Your task to perform on an android device: Open settings on Google Maps Image 0: 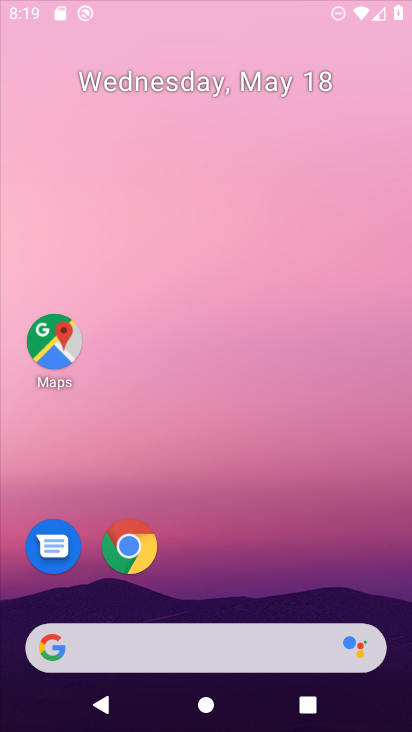
Step 0: click (305, 245)
Your task to perform on an android device: Open settings on Google Maps Image 1: 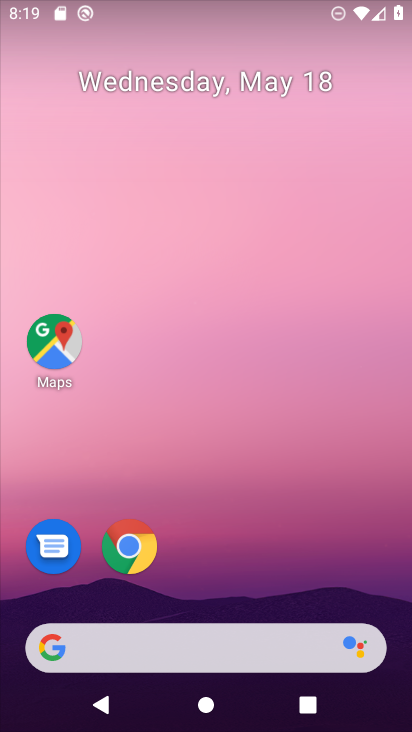
Step 1: drag from (174, 686) to (312, 202)
Your task to perform on an android device: Open settings on Google Maps Image 2: 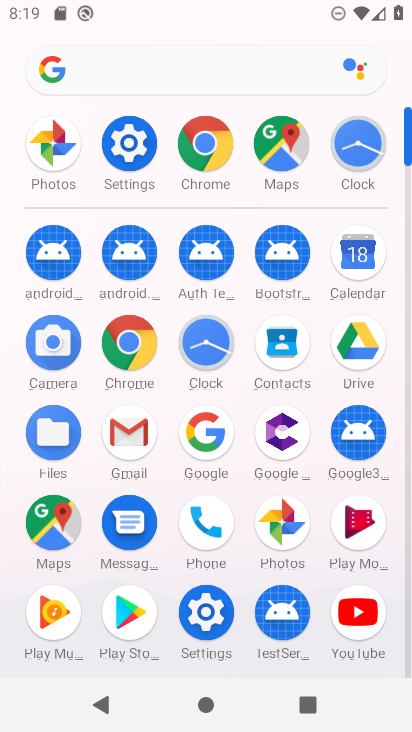
Step 2: click (266, 136)
Your task to perform on an android device: Open settings on Google Maps Image 3: 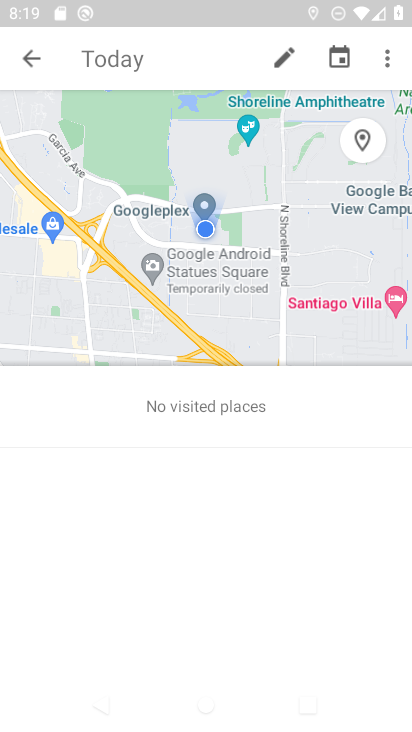
Step 3: click (31, 68)
Your task to perform on an android device: Open settings on Google Maps Image 4: 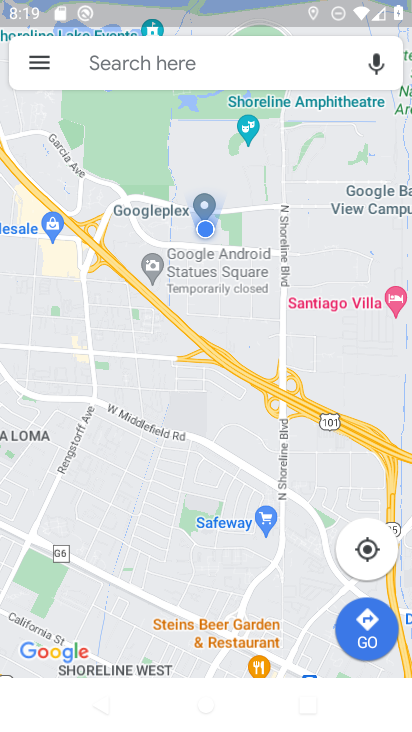
Step 4: click (56, 59)
Your task to perform on an android device: Open settings on Google Maps Image 5: 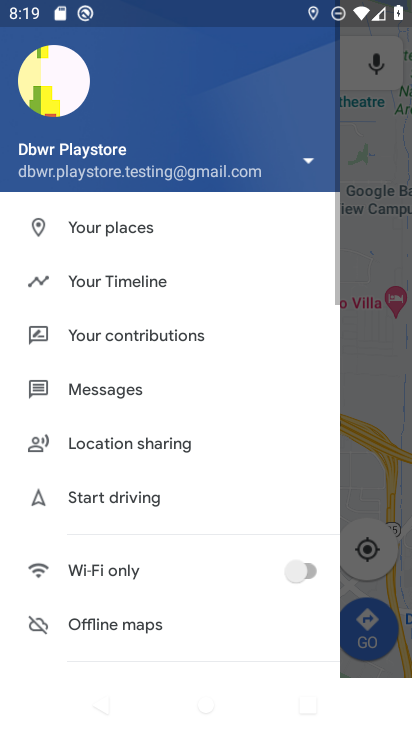
Step 5: drag from (131, 560) to (232, 246)
Your task to perform on an android device: Open settings on Google Maps Image 6: 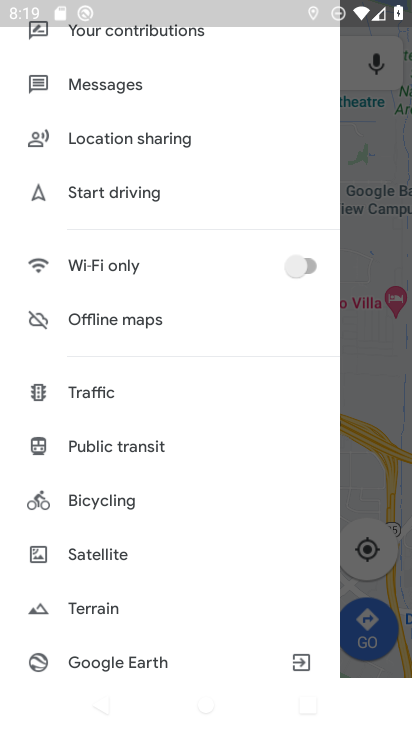
Step 6: drag from (90, 606) to (176, 373)
Your task to perform on an android device: Open settings on Google Maps Image 7: 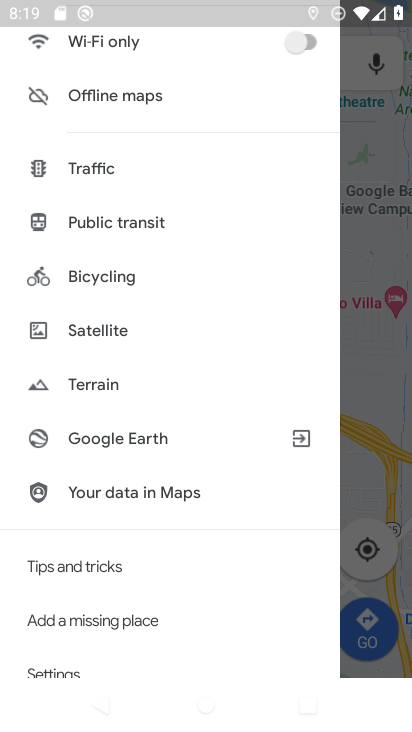
Step 7: drag from (85, 659) to (102, 592)
Your task to perform on an android device: Open settings on Google Maps Image 8: 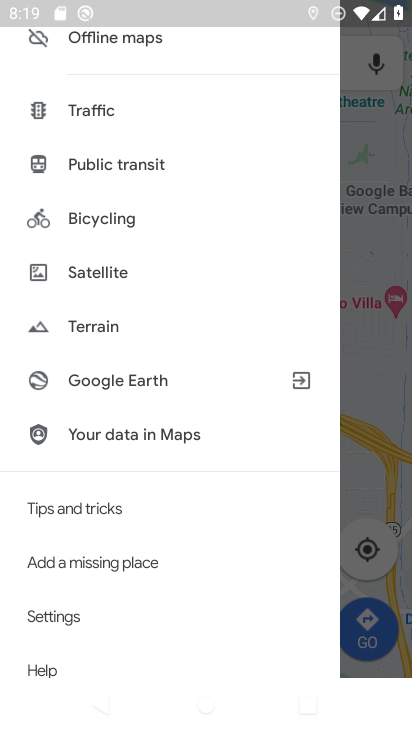
Step 8: click (75, 624)
Your task to perform on an android device: Open settings on Google Maps Image 9: 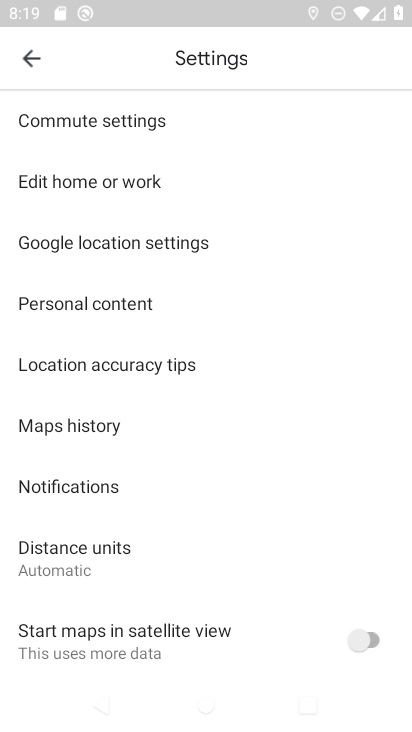
Step 9: task complete